Your task to perform on an android device: add a contact in the contacts app Image 0: 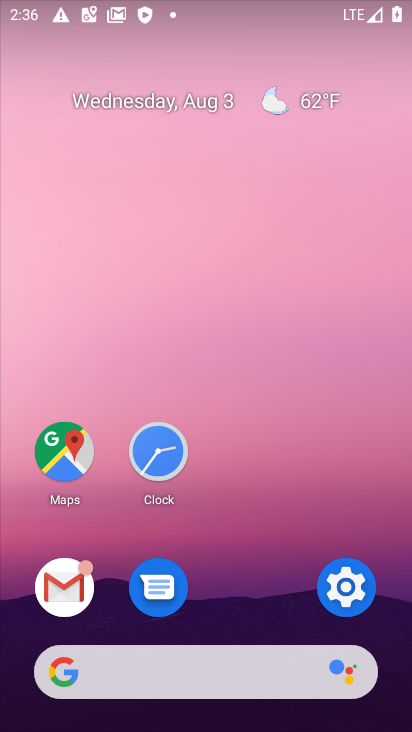
Step 0: drag from (242, 579) to (215, 86)
Your task to perform on an android device: add a contact in the contacts app Image 1: 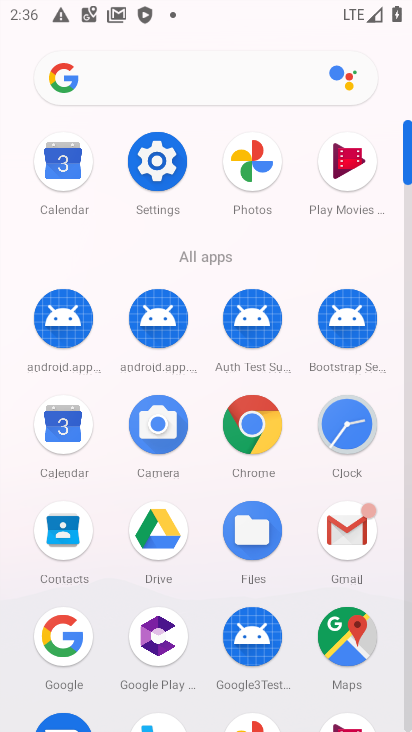
Step 1: click (58, 542)
Your task to perform on an android device: add a contact in the contacts app Image 2: 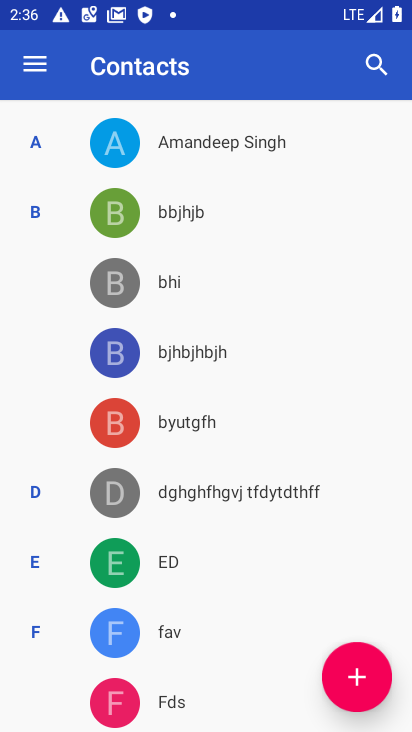
Step 2: click (353, 682)
Your task to perform on an android device: add a contact in the contacts app Image 3: 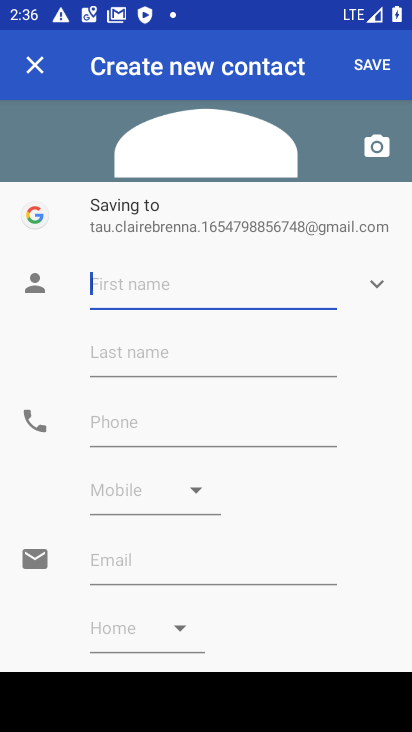
Step 3: type "ritika darling"
Your task to perform on an android device: add a contact in the contacts app Image 4: 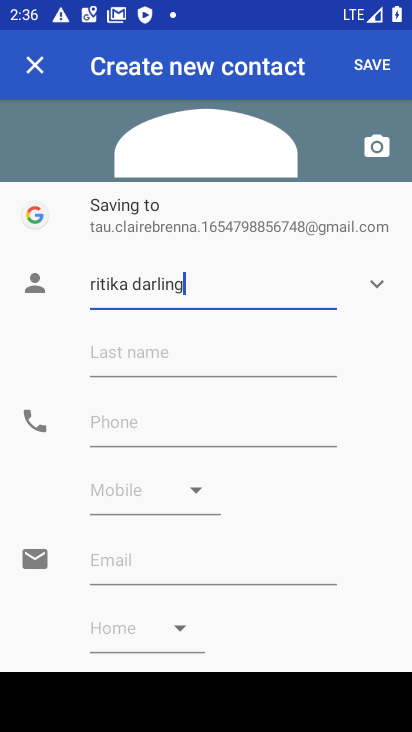
Step 4: click (131, 423)
Your task to perform on an android device: add a contact in the contacts app Image 5: 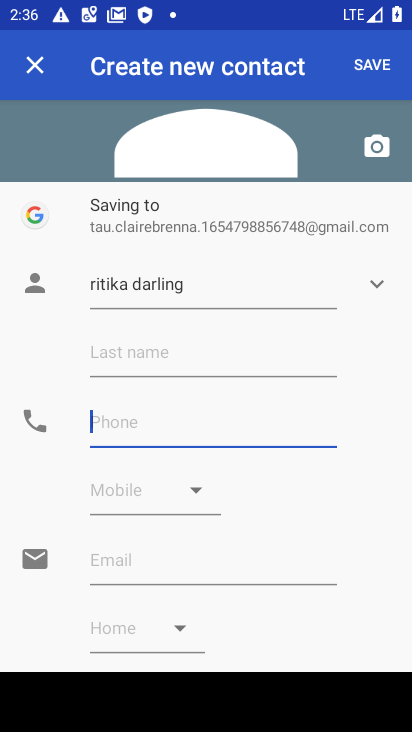
Step 5: type "0987654321"
Your task to perform on an android device: add a contact in the contacts app Image 6: 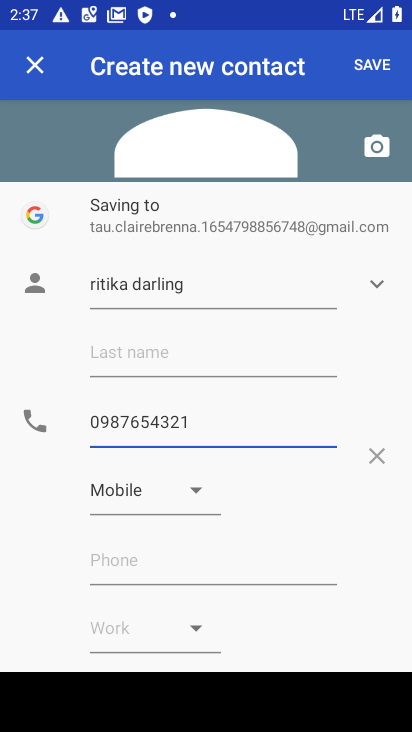
Step 6: click (376, 68)
Your task to perform on an android device: add a contact in the contacts app Image 7: 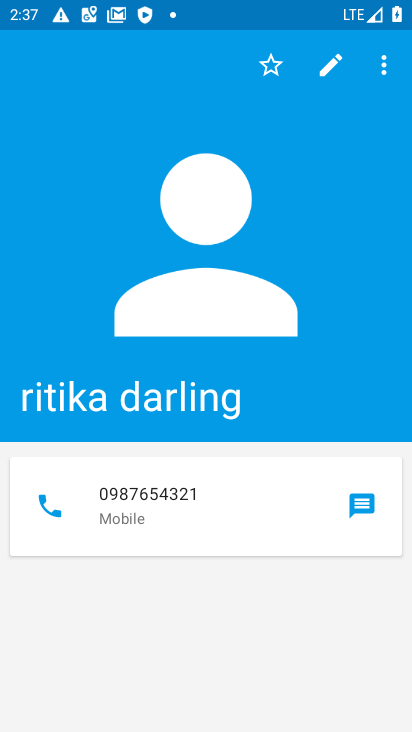
Step 7: task complete